Your task to perform on an android device: turn vacation reply on in the gmail app Image 0: 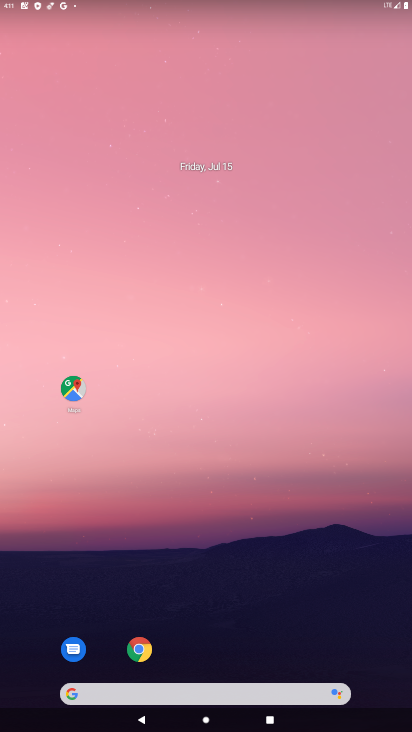
Step 0: drag from (243, 504) to (220, 4)
Your task to perform on an android device: turn vacation reply on in the gmail app Image 1: 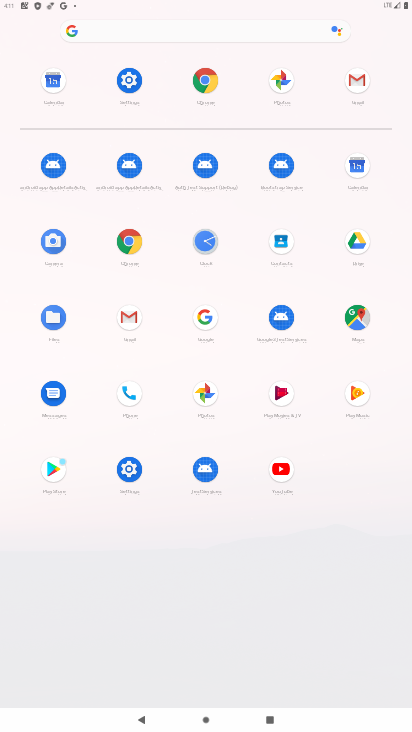
Step 1: click (346, 82)
Your task to perform on an android device: turn vacation reply on in the gmail app Image 2: 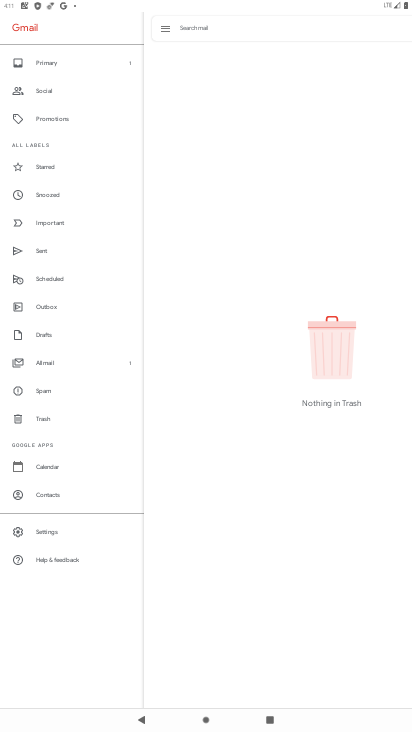
Step 2: click (67, 530)
Your task to perform on an android device: turn vacation reply on in the gmail app Image 3: 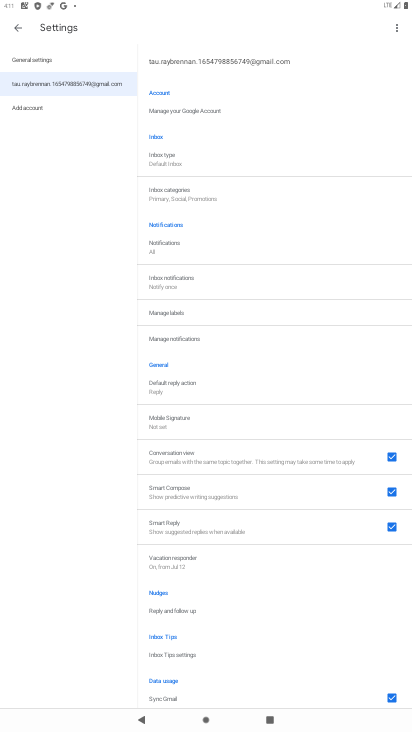
Step 3: click (255, 564)
Your task to perform on an android device: turn vacation reply on in the gmail app Image 4: 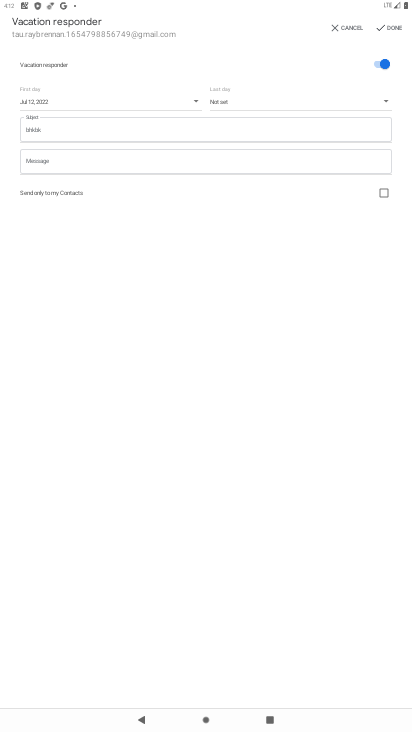
Step 4: task complete